Your task to perform on an android device: Open Android settings Image 0: 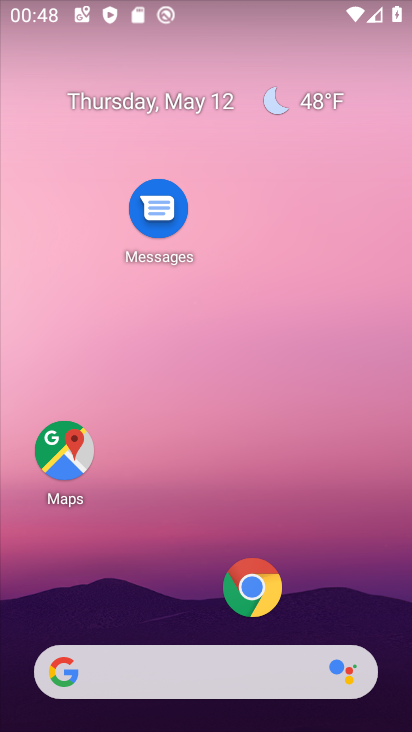
Step 0: drag from (185, 631) to (234, 4)
Your task to perform on an android device: Open Android settings Image 1: 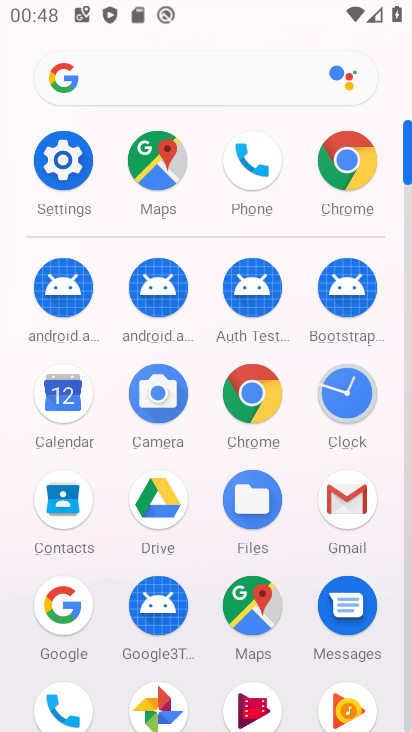
Step 1: click (71, 163)
Your task to perform on an android device: Open Android settings Image 2: 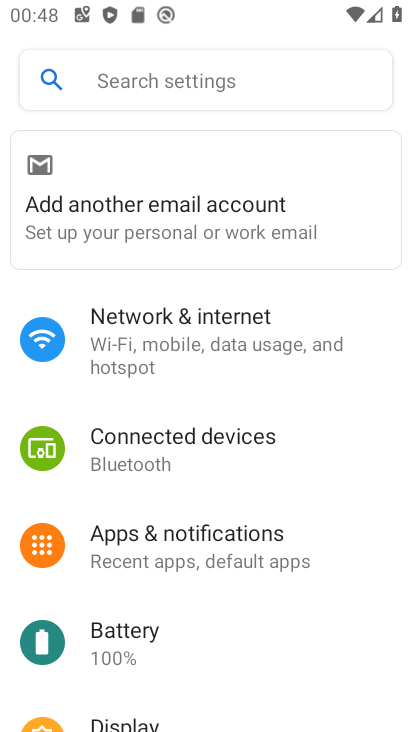
Step 2: click (130, 341)
Your task to perform on an android device: Open Android settings Image 3: 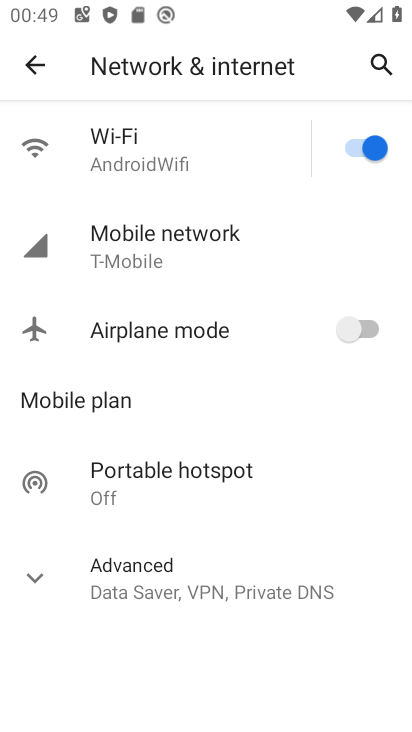
Step 3: click (33, 55)
Your task to perform on an android device: Open Android settings Image 4: 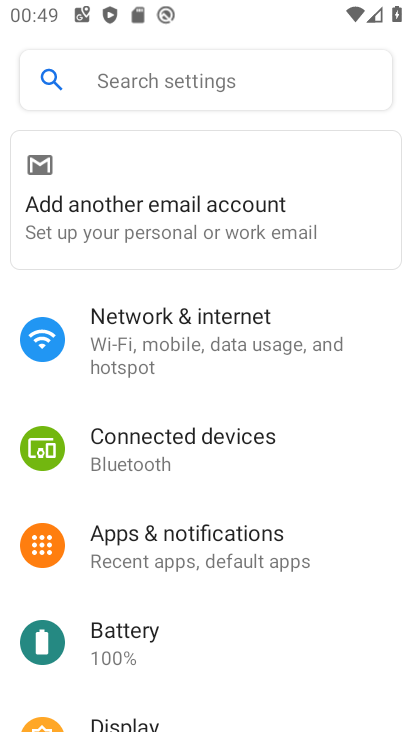
Step 4: task complete